Your task to perform on an android device: search for starred emails in the gmail app Image 0: 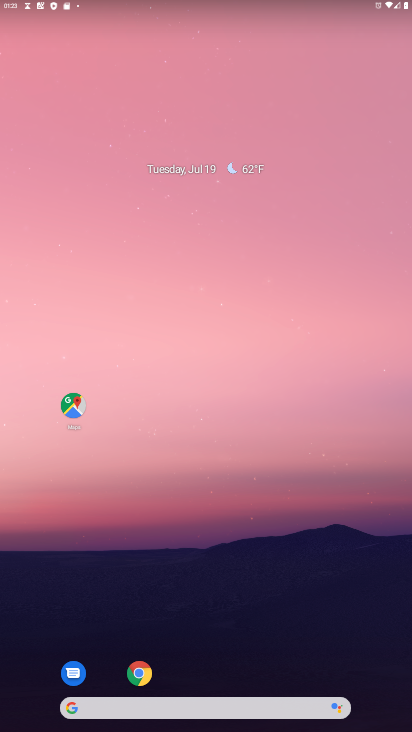
Step 0: drag from (195, 619) to (183, 182)
Your task to perform on an android device: search for starred emails in the gmail app Image 1: 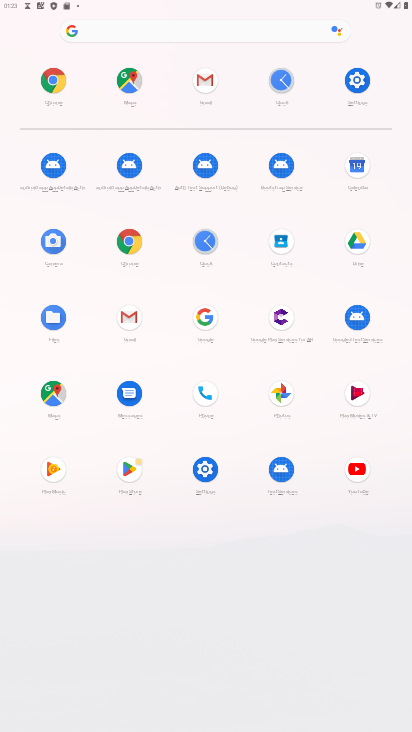
Step 1: click (132, 318)
Your task to perform on an android device: search for starred emails in the gmail app Image 2: 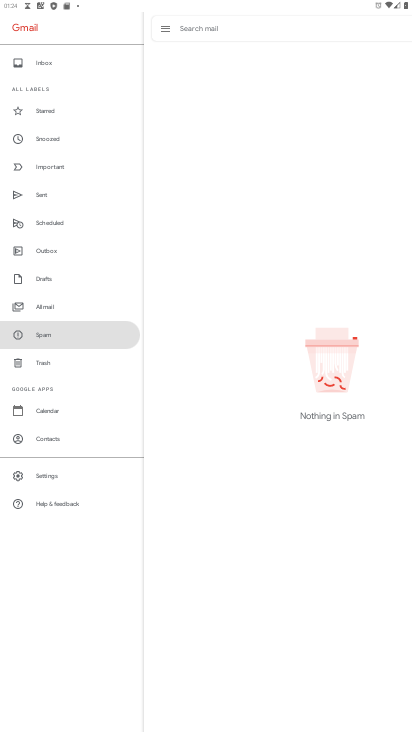
Step 2: click (73, 124)
Your task to perform on an android device: search for starred emails in the gmail app Image 3: 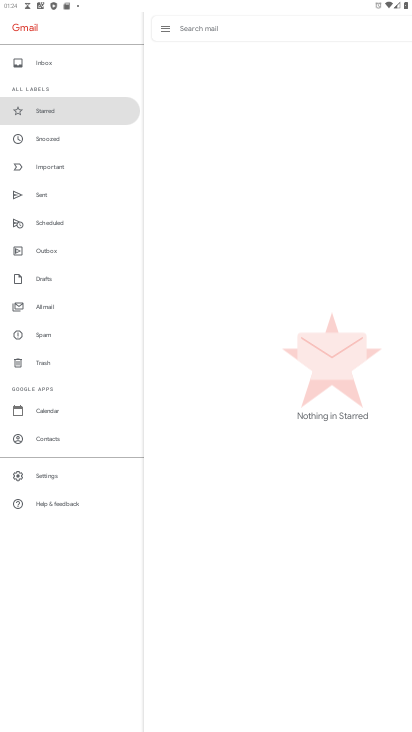
Step 3: task complete